Your task to perform on an android device: delete location history Image 0: 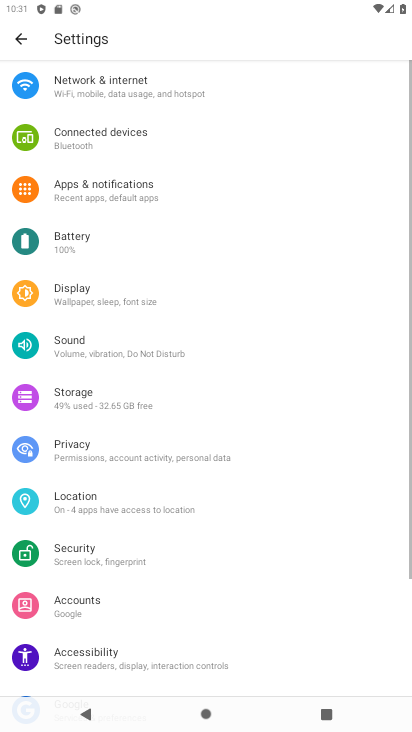
Step 0: press home button
Your task to perform on an android device: delete location history Image 1: 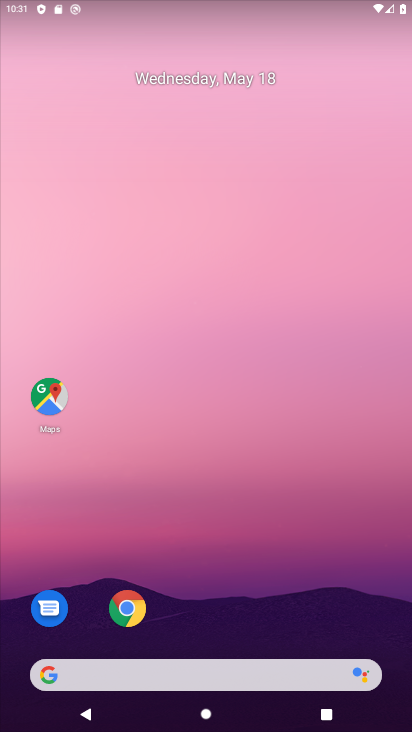
Step 1: drag from (318, 541) to (350, 0)
Your task to perform on an android device: delete location history Image 2: 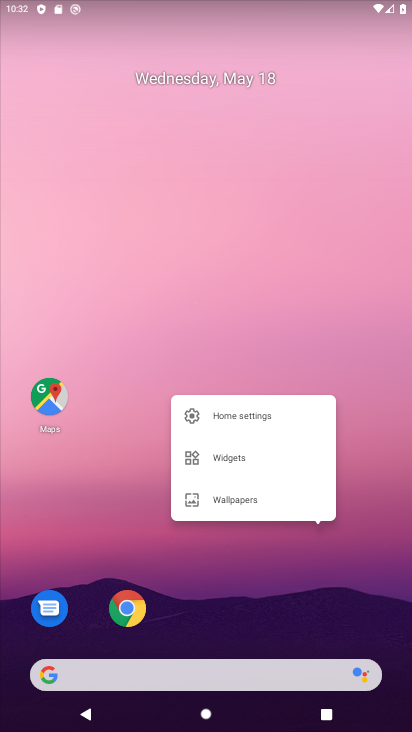
Step 2: click (266, 550)
Your task to perform on an android device: delete location history Image 3: 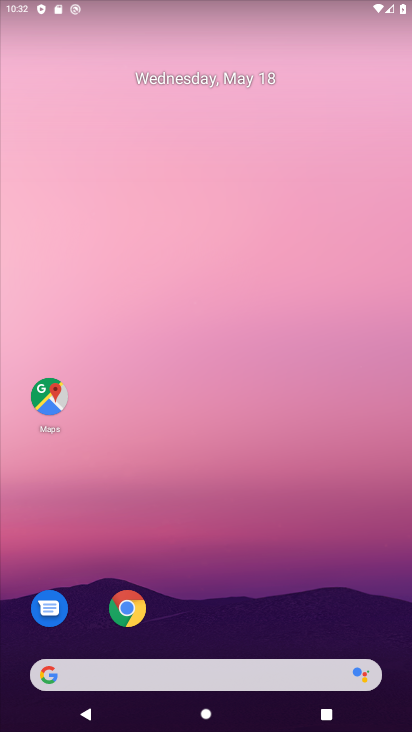
Step 3: drag from (312, 599) to (285, 0)
Your task to perform on an android device: delete location history Image 4: 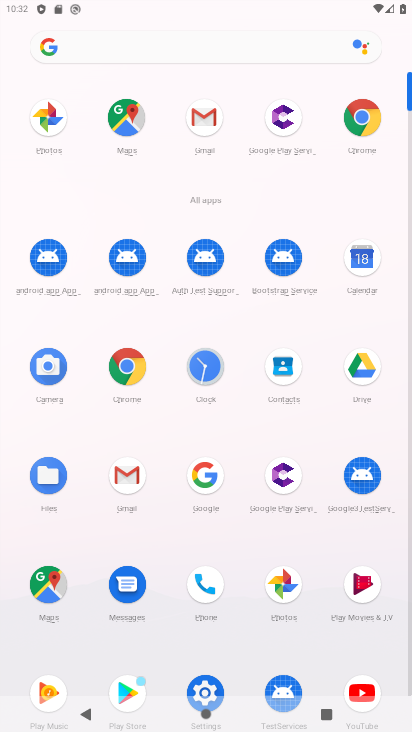
Step 4: click (125, 137)
Your task to perform on an android device: delete location history Image 5: 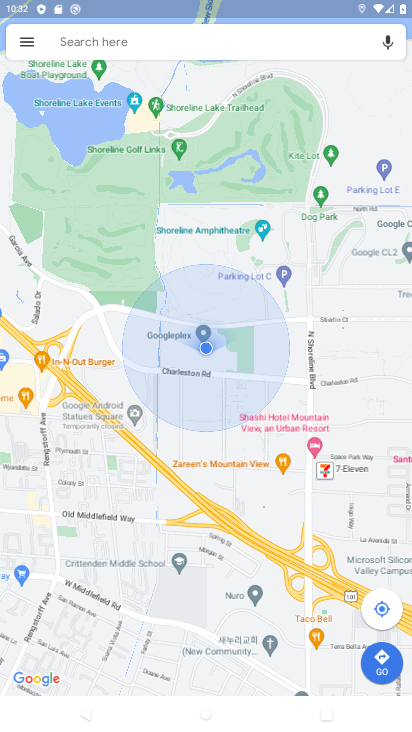
Step 5: click (31, 48)
Your task to perform on an android device: delete location history Image 6: 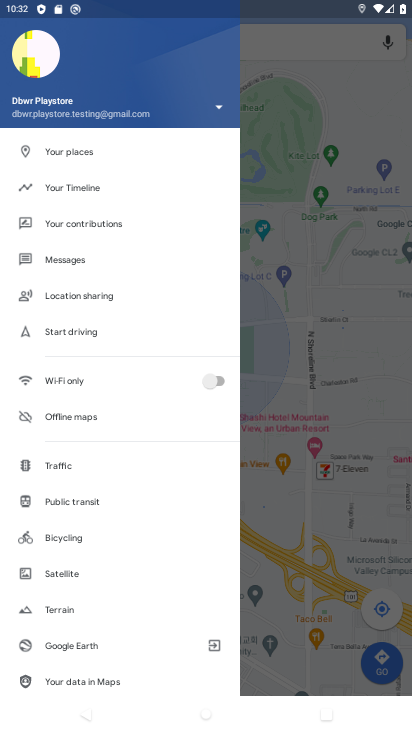
Step 6: click (34, 200)
Your task to perform on an android device: delete location history Image 7: 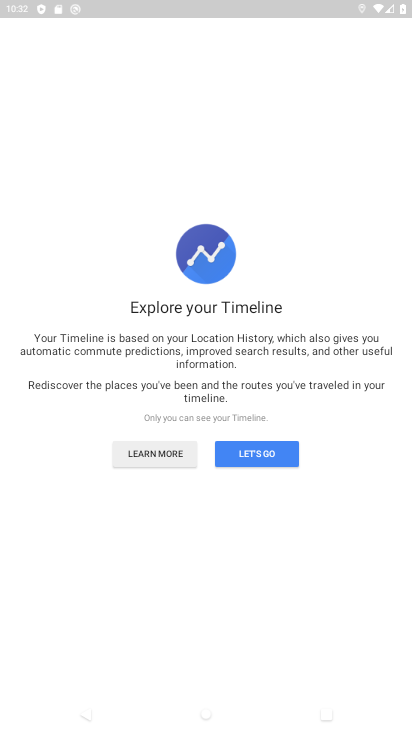
Step 7: click (276, 460)
Your task to perform on an android device: delete location history Image 8: 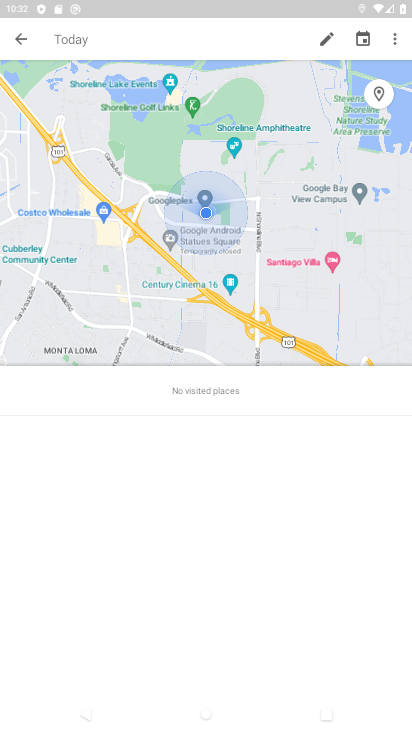
Step 8: click (397, 39)
Your task to perform on an android device: delete location history Image 9: 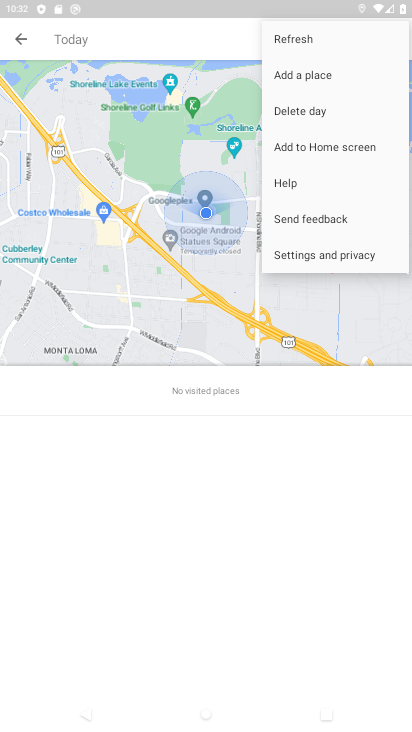
Step 9: click (279, 252)
Your task to perform on an android device: delete location history Image 10: 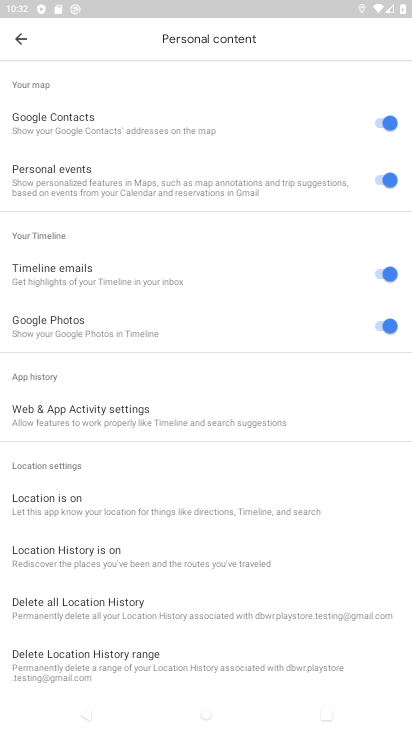
Step 10: drag from (245, 560) to (251, 291)
Your task to perform on an android device: delete location history Image 11: 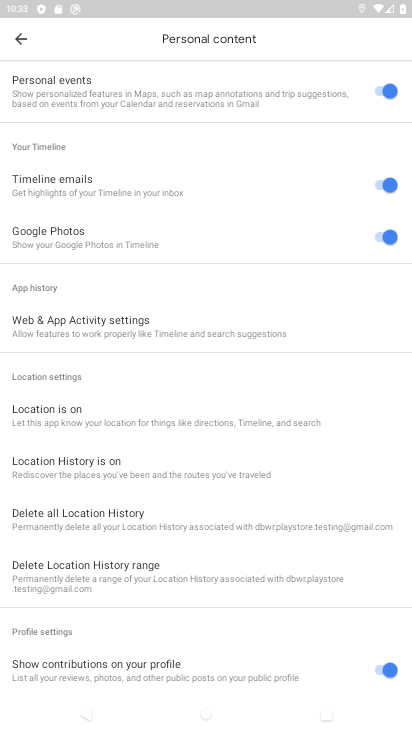
Step 11: click (125, 529)
Your task to perform on an android device: delete location history Image 12: 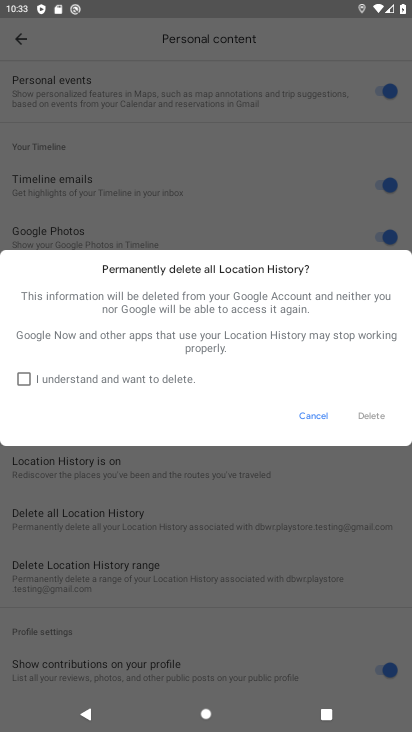
Step 12: click (152, 381)
Your task to perform on an android device: delete location history Image 13: 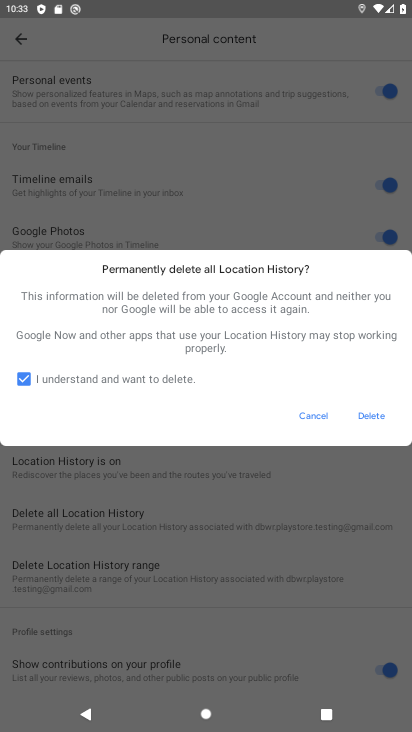
Step 13: click (373, 415)
Your task to perform on an android device: delete location history Image 14: 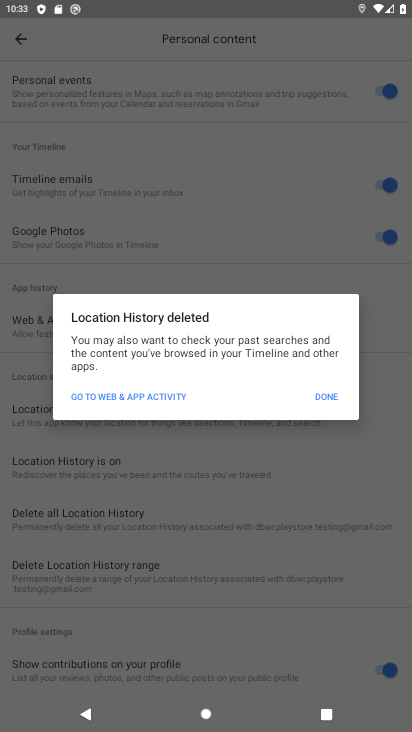
Step 14: click (330, 396)
Your task to perform on an android device: delete location history Image 15: 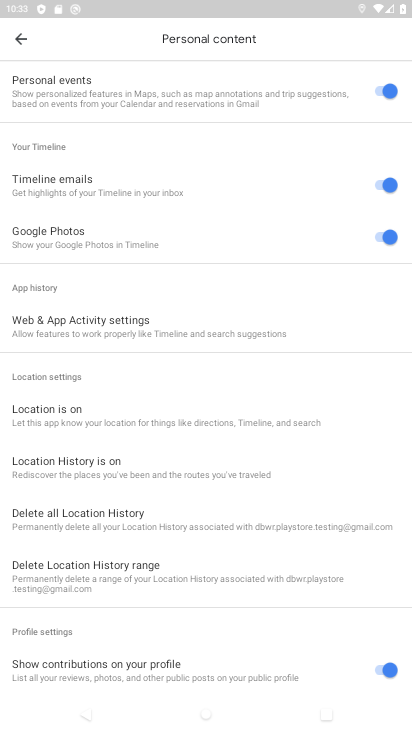
Step 15: task complete